Your task to perform on an android device: check data usage Image 0: 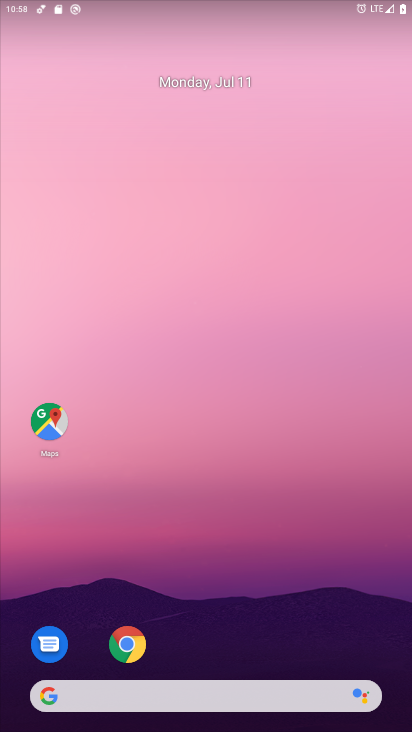
Step 0: drag from (290, 567) to (274, 37)
Your task to perform on an android device: check data usage Image 1: 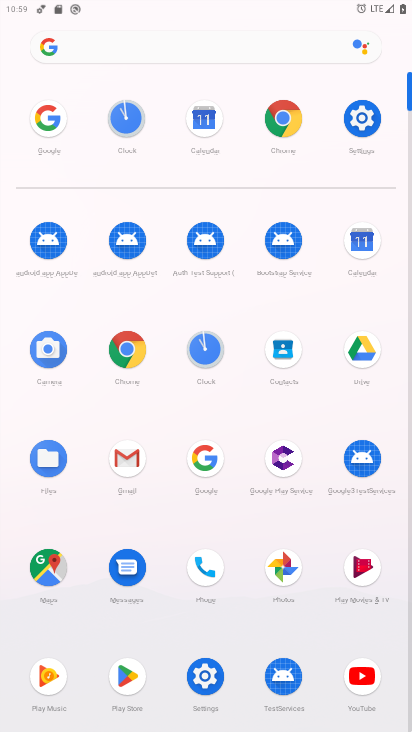
Step 1: click (354, 113)
Your task to perform on an android device: check data usage Image 2: 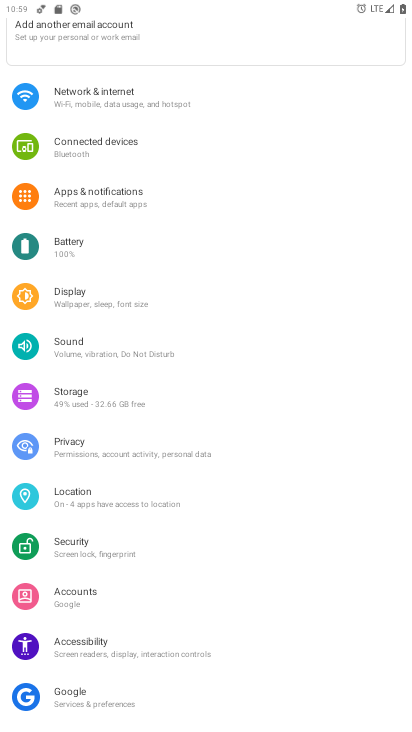
Step 2: click (131, 105)
Your task to perform on an android device: check data usage Image 3: 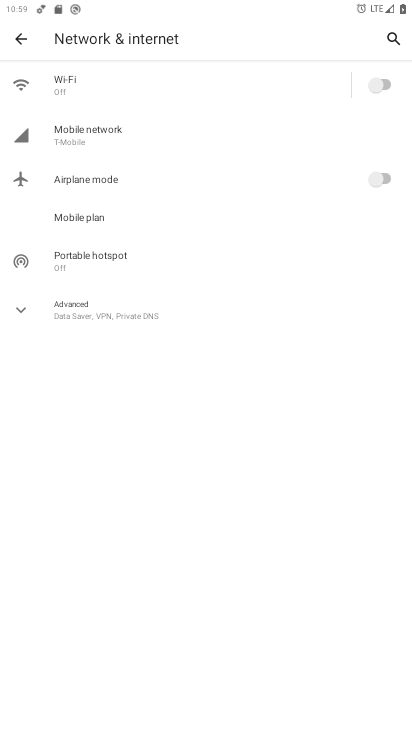
Step 3: click (91, 148)
Your task to perform on an android device: check data usage Image 4: 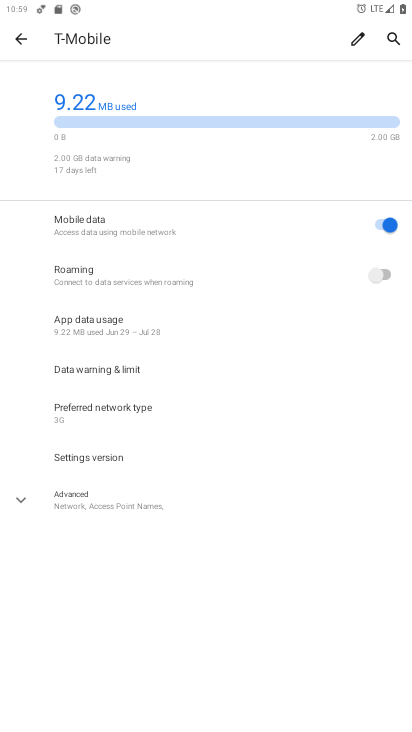
Step 4: task complete